Your task to perform on an android device: Search for sushi restaurants on Maps Image 0: 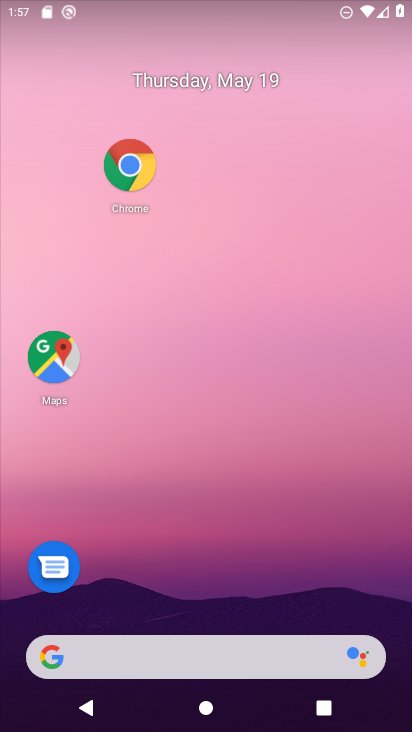
Step 0: click (54, 364)
Your task to perform on an android device: Search for sushi restaurants on Maps Image 1: 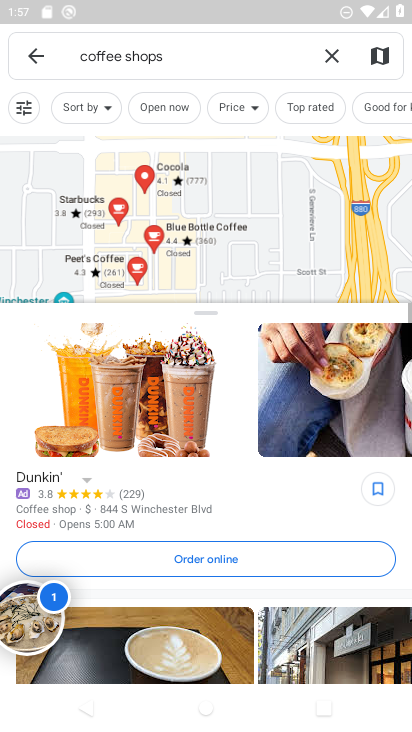
Step 1: click (336, 50)
Your task to perform on an android device: Search for sushi restaurants on Maps Image 2: 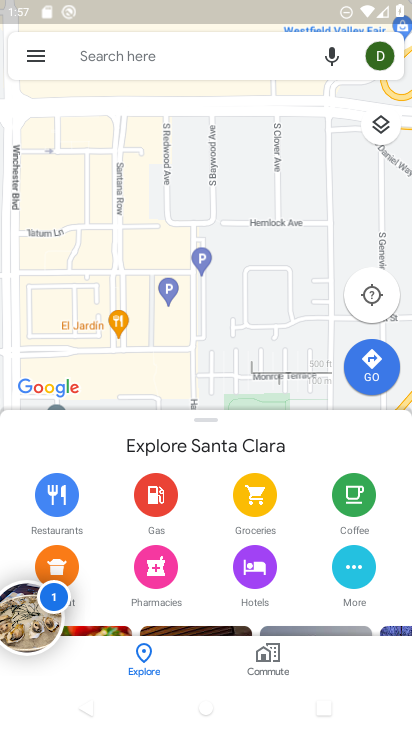
Step 2: click (221, 60)
Your task to perform on an android device: Search for sushi restaurants on Maps Image 3: 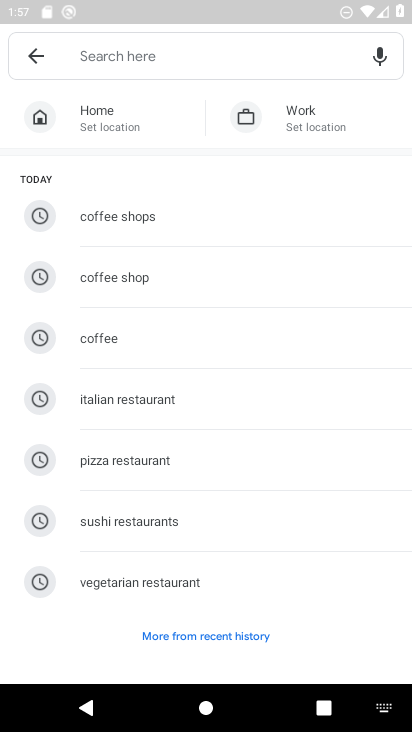
Step 3: click (82, 519)
Your task to perform on an android device: Search for sushi restaurants on Maps Image 4: 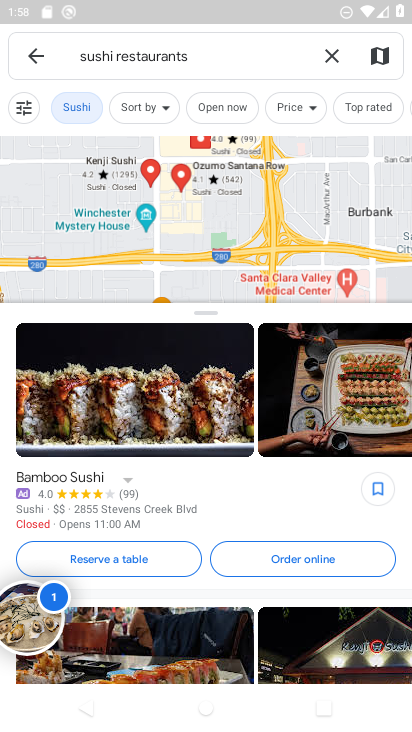
Step 4: task complete